Your task to perform on an android device: What's the weather like in Delhi? Image 0: 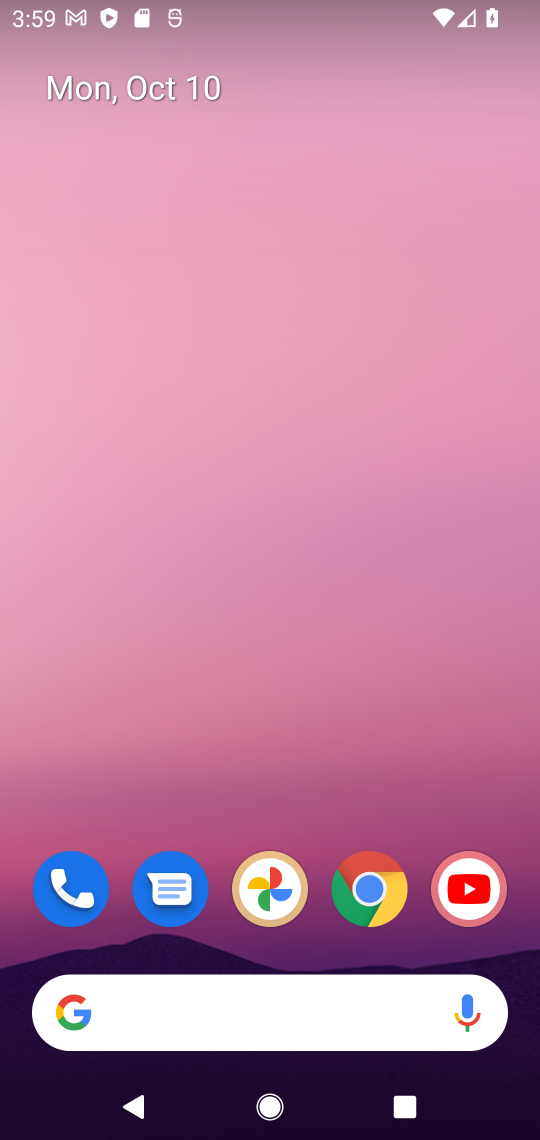
Step 0: click (380, 888)
Your task to perform on an android device: What's the weather like in Delhi? Image 1: 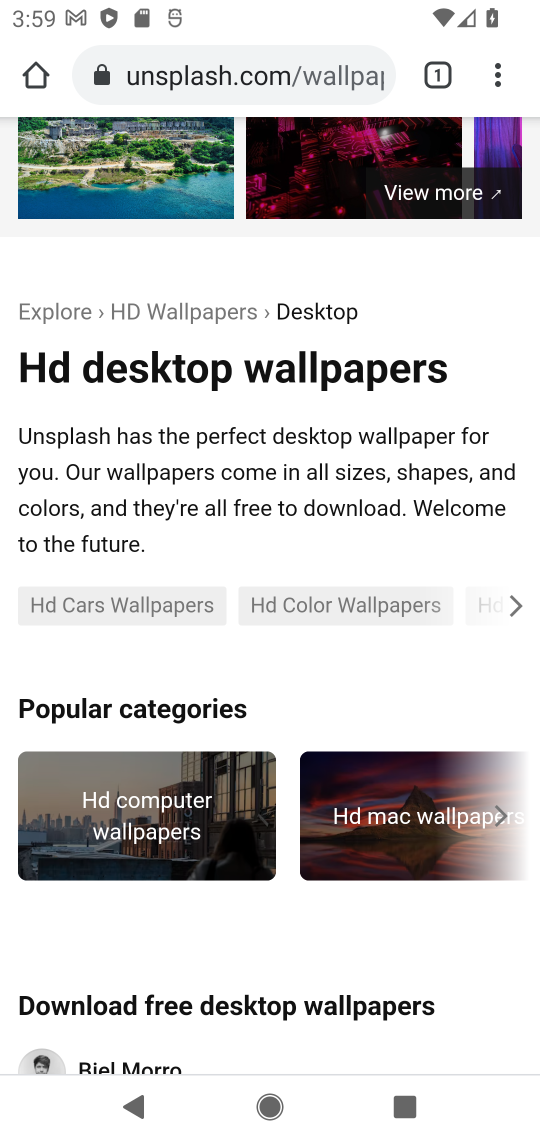
Step 1: click (215, 57)
Your task to perform on an android device: What's the weather like in Delhi? Image 2: 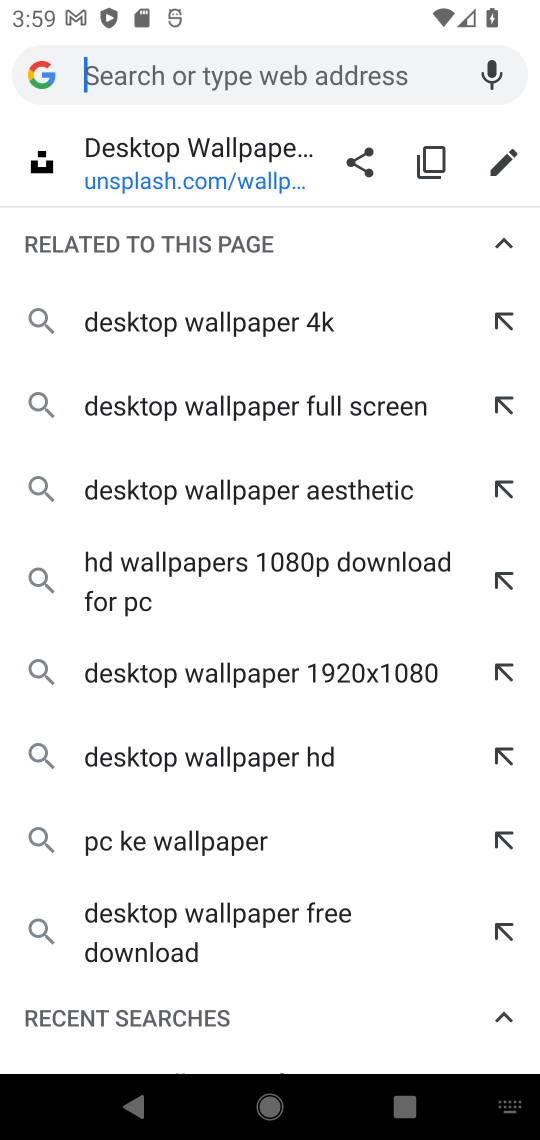
Step 2: type "weather like in Delhi?"
Your task to perform on an android device: What's the weather like in Delhi? Image 3: 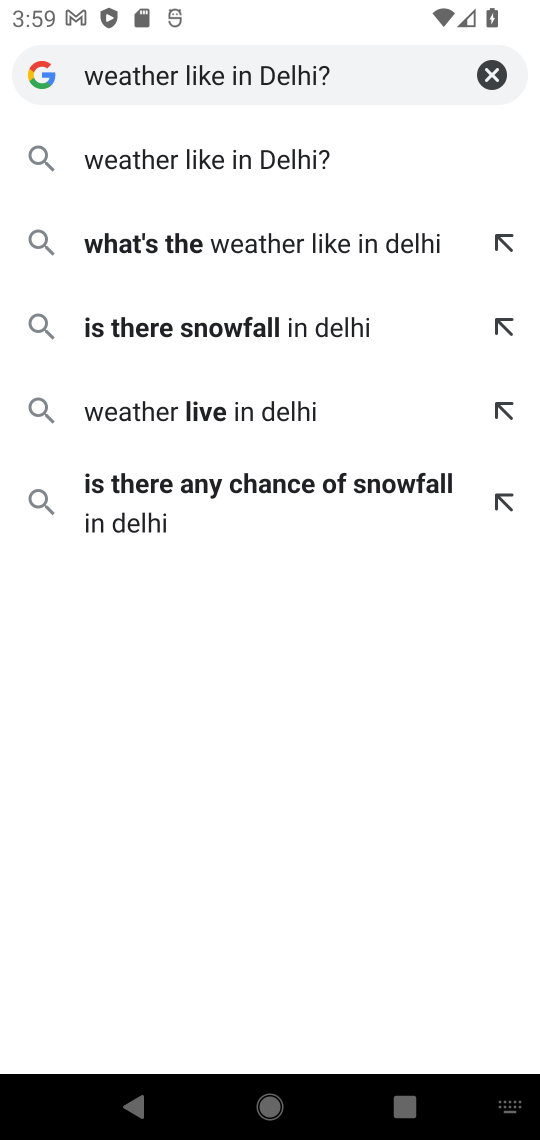
Step 3: click (160, 141)
Your task to perform on an android device: What's the weather like in Delhi? Image 4: 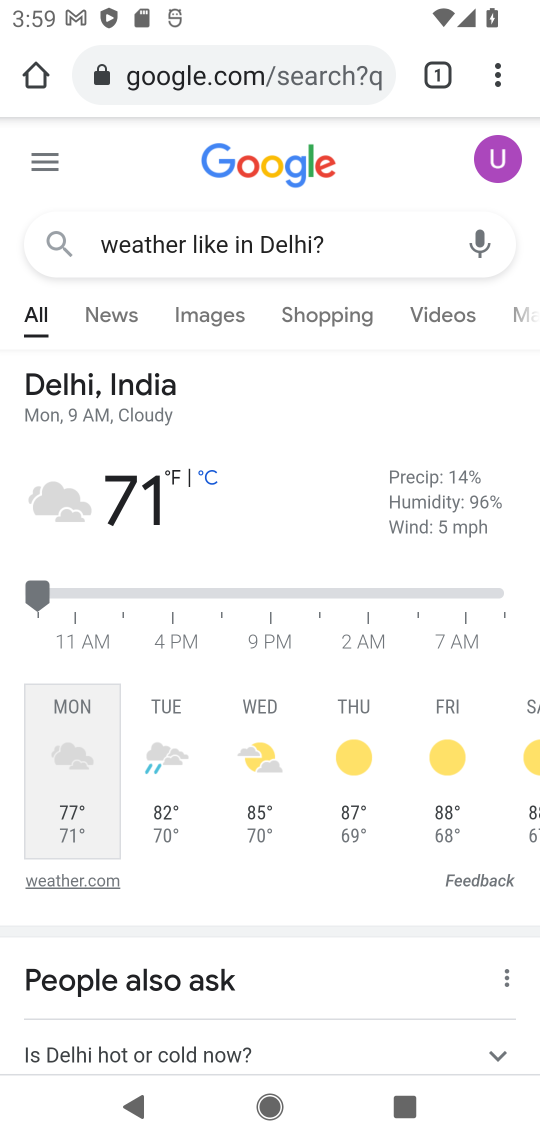
Step 4: task complete